Your task to perform on an android device: turn on wifi Image 0: 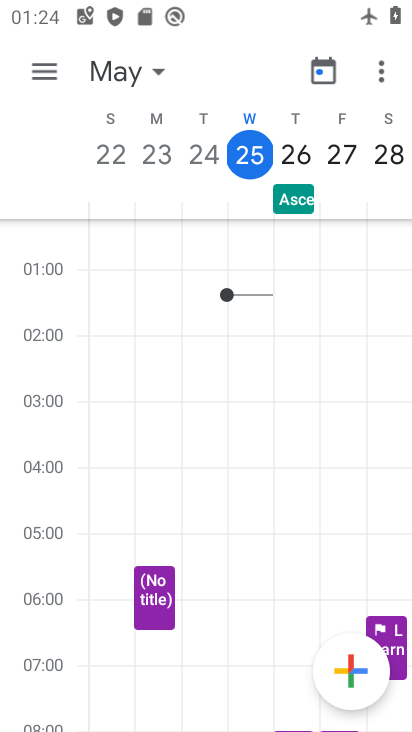
Step 0: press home button
Your task to perform on an android device: turn on wifi Image 1: 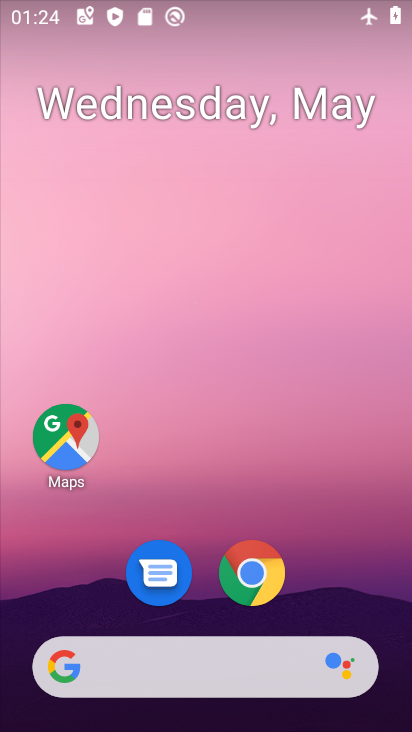
Step 1: drag from (345, 594) to (306, 234)
Your task to perform on an android device: turn on wifi Image 2: 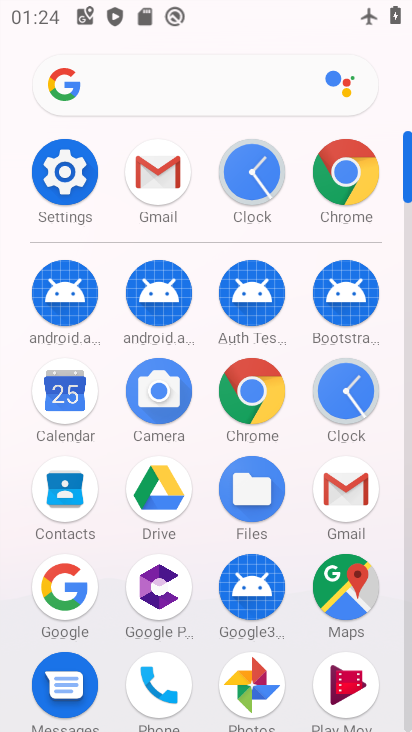
Step 2: click (57, 168)
Your task to perform on an android device: turn on wifi Image 3: 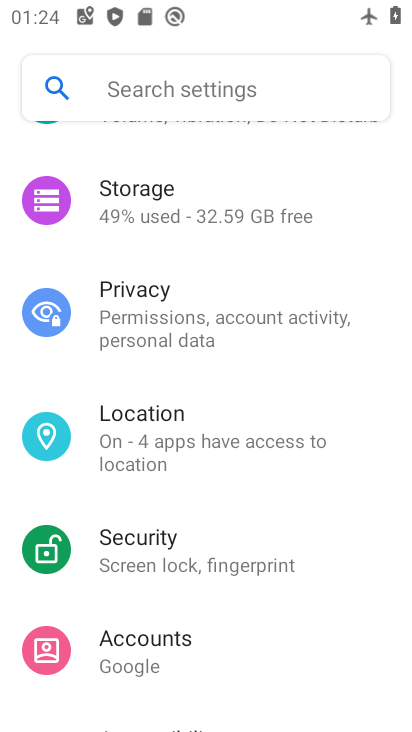
Step 3: drag from (209, 203) to (245, 608)
Your task to perform on an android device: turn on wifi Image 4: 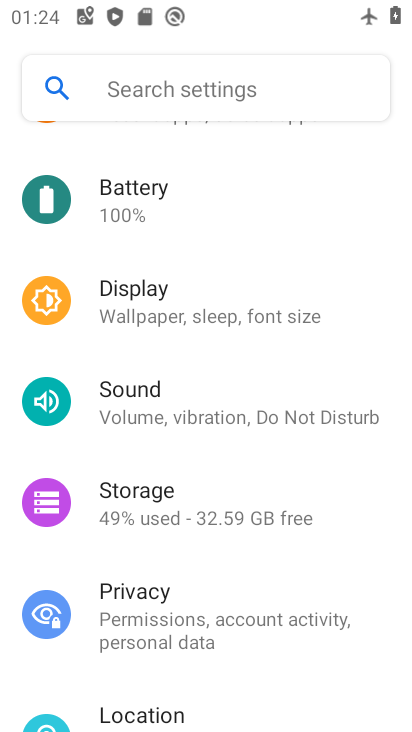
Step 4: drag from (205, 168) to (228, 626)
Your task to perform on an android device: turn on wifi Image 5: 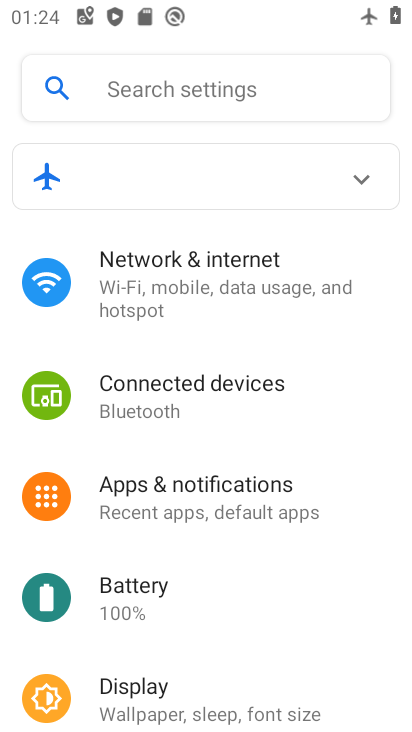
Step 5: click (173, 294)
Your task to perform on an android device: turn on wifi Image 6: 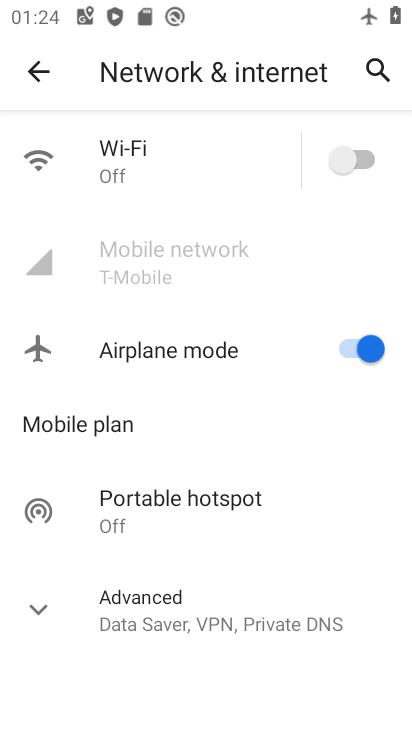
Step 6: click (364, 149)
Your task to perform on an android device: turn on wifi Image 7: 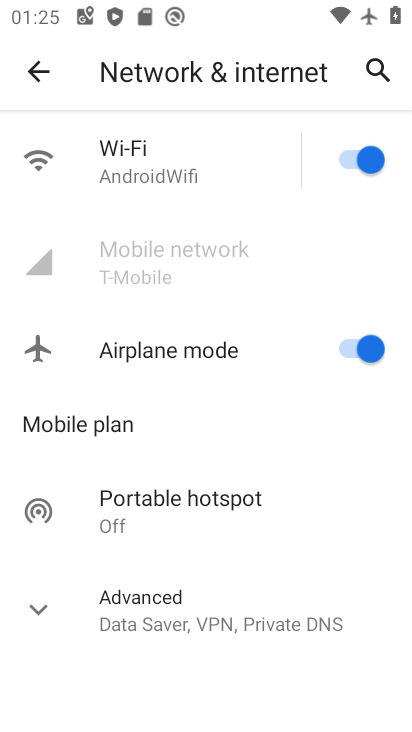
Step 7: task complete